Your task to perform on an android device: allow cookies in the chrome app Image 0: 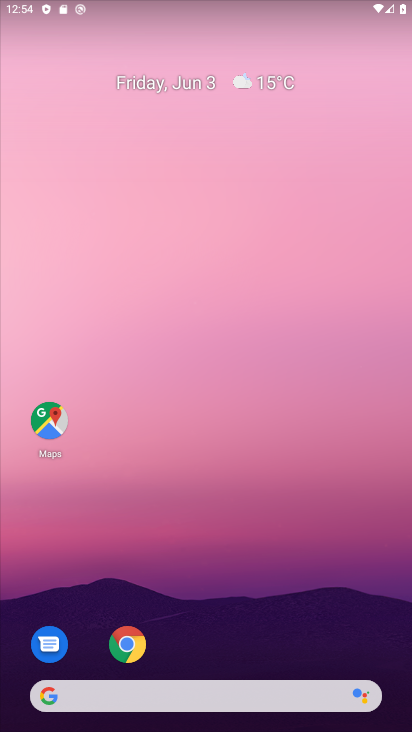
Step 0: click (120, 648)
Your task to perform on an android device: allow cookies in the chrome app Image 1: 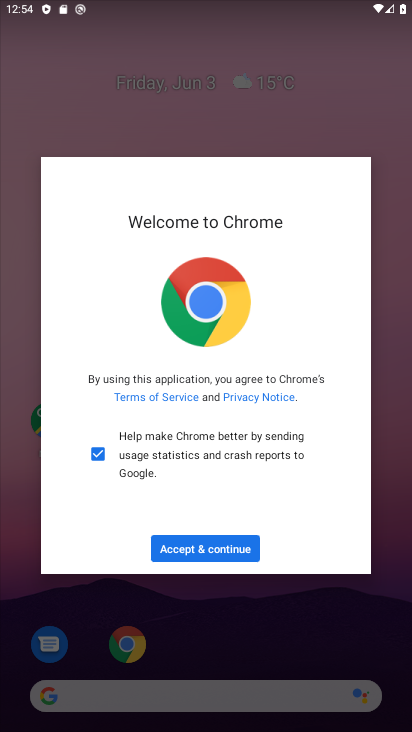
Step 1: click (209, 546)
Your task to perform on an android device: allow cookies in the chrome app Image 2: 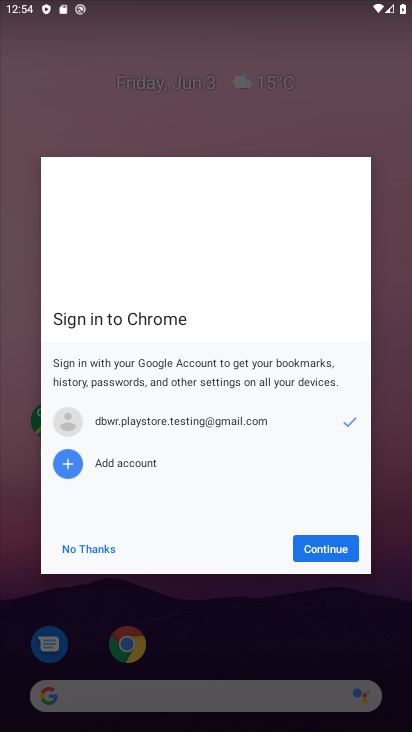
Step 2: click (310, 545)
Your task to perform on an android device: allow cookies in the chrome app Image 3: 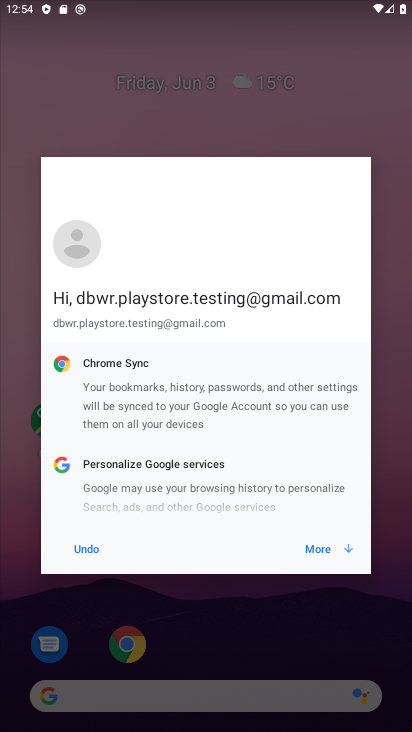
Step 3: click (310, 545)
Your task to perform on an android device: allow cookies in the chrome app Image 4: 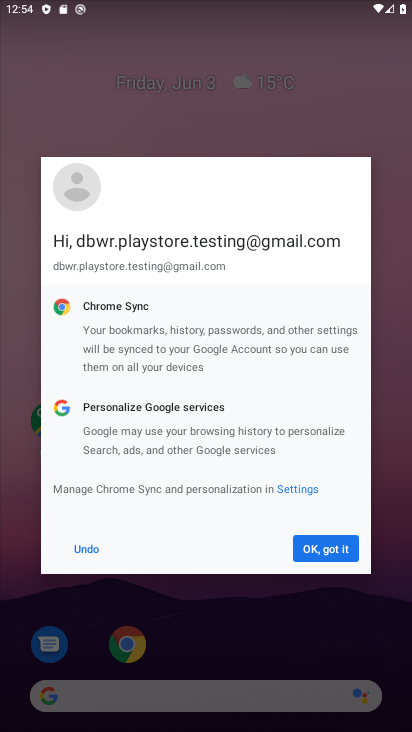
Step 4: click (328, 550)
Your task to perform on an android device: allow cookies in the chrome app Image 5: 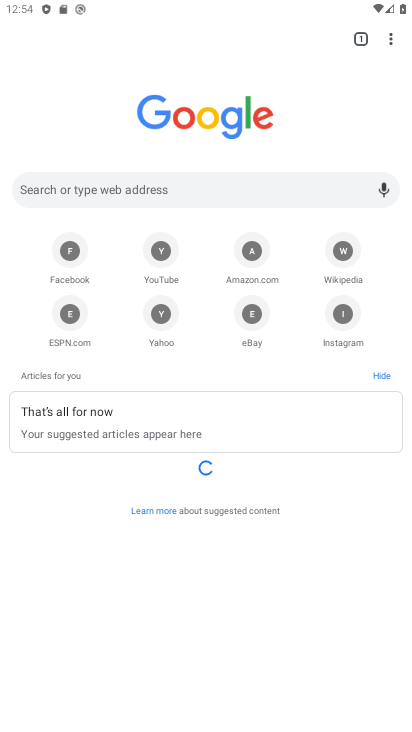
Step 5: click (391, 36)
Your task to perform on an android device: allow cookies in the chrome app Image 6: 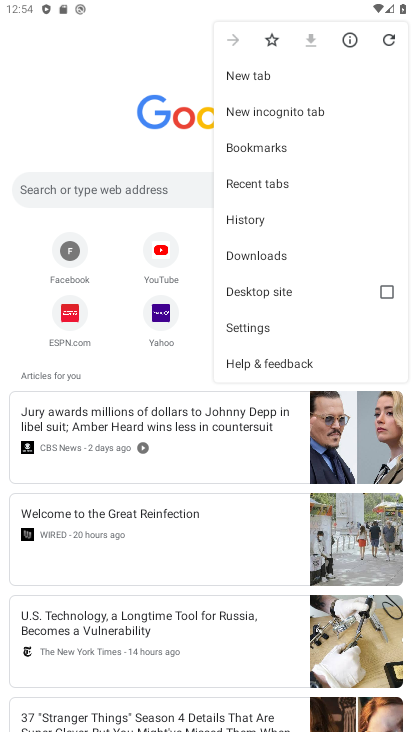
Step 6: click (257, 326)
Your task to perform on an android device: allow cookies in the chrome app Image 7: 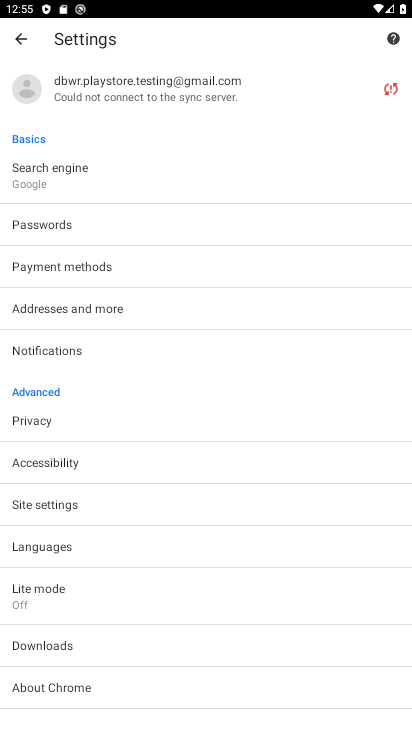
Step 7: click (78, 508)
Your task to perform on an android device: allow cookies in the chrome app Image 8: 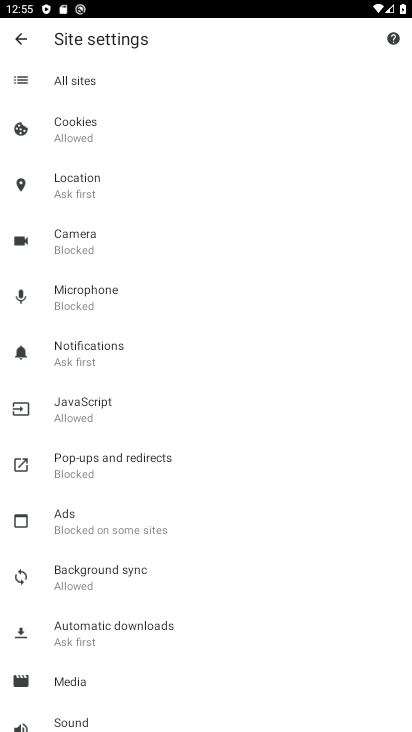
Step 8: click (100, 129)
Your task to perform on an android device: allow cookies in the chrome app Image 9: 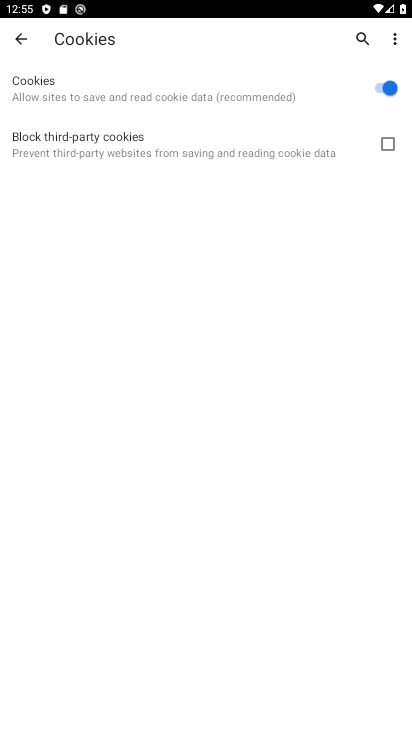
Step 9: task complete